Your task to perform on an android device: toggle notification dots Image 0: 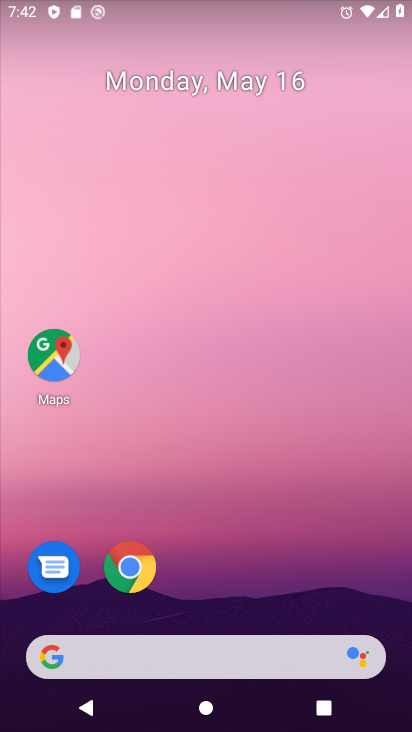
Step 0: drag from (214, 611) to (182, 245)
Your task to perform on an android device: toggle notification dots Image 1: 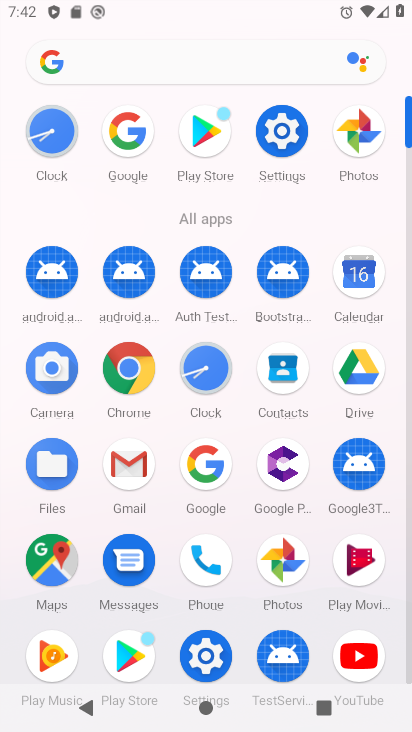
Step 1: click (275, 136)
Your task to perform on an android device: toggle notification dots Image 2: 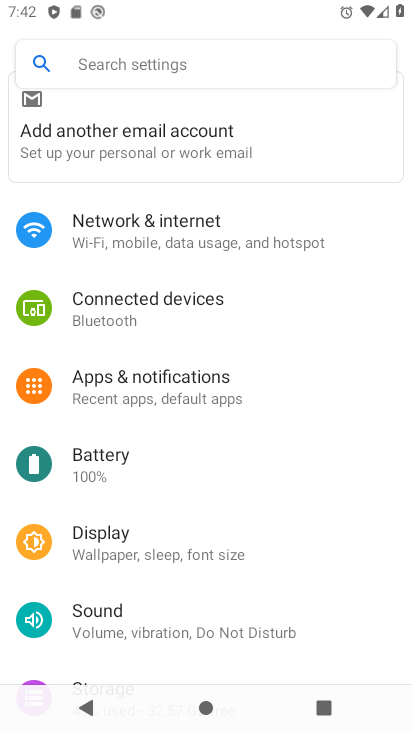
Step 2: click (197, 385)
Your task to perform on an android device: toggle notification dots Image 3: 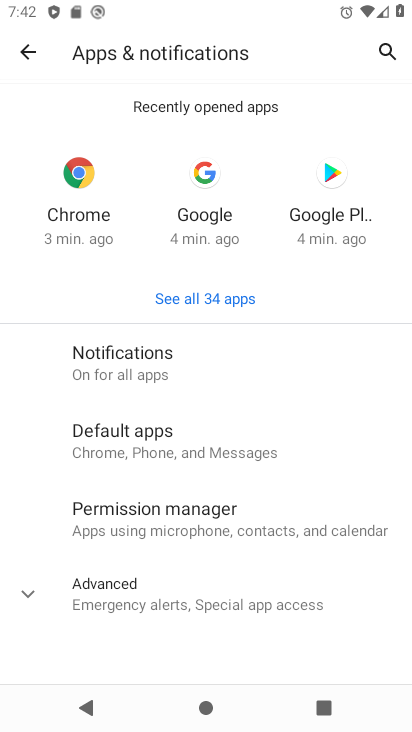
Step 3: click (131, 357)
Your task to perform on an android device: toggle notification dots Image 4: 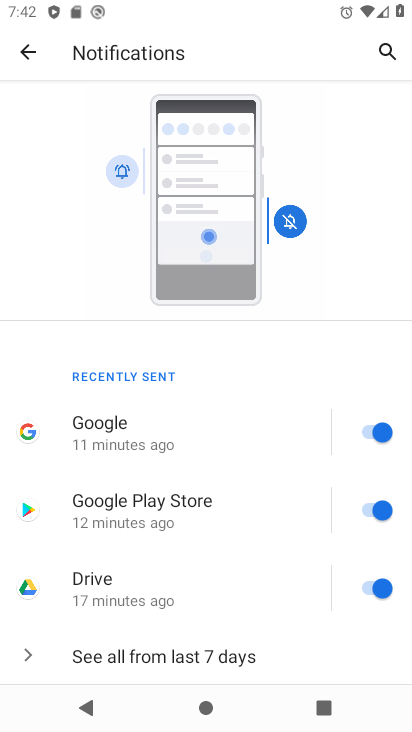
Step 4: drag from (175, 654) to (221, 130)
Your task to perform on an android device: toggle notification dots Image 5: 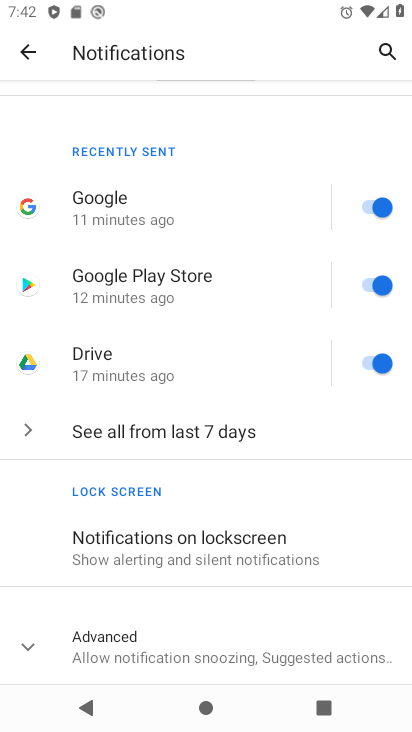
Step 5: drag from (208, 629) to (208, 284)
Your task to perform on an android device: toggle notification dots Image 6: 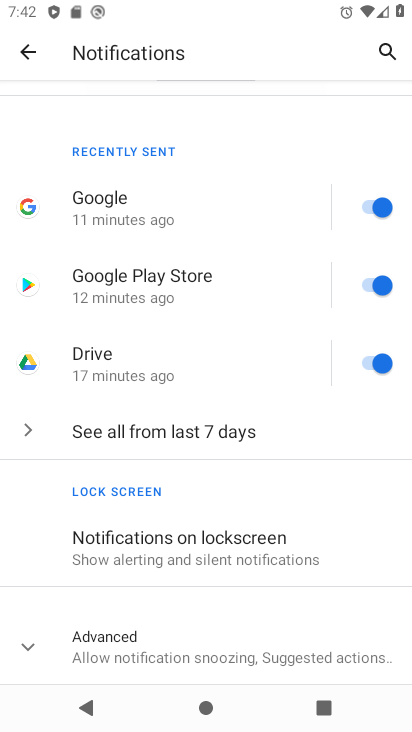
Step 6: click (118, 662)
Your task to perform on an android device: toggle notification dots Image 7: 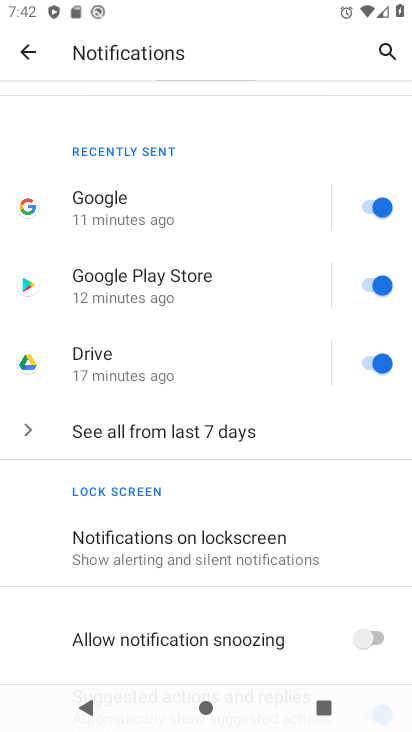
Step 7: drag from (240, 362) to (257, 212)
Your task to perform on an android device: toggle notification dots Image 8: 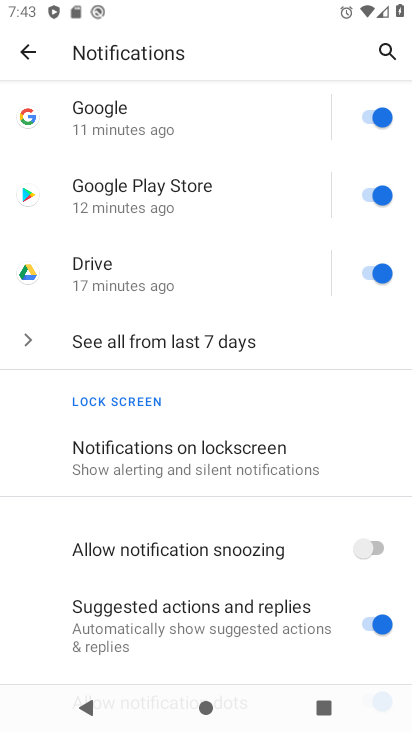
Step 8: drag from (257, 646) to (248, 299)
Your task to perform on an android device: toggle notification dots Image 9: 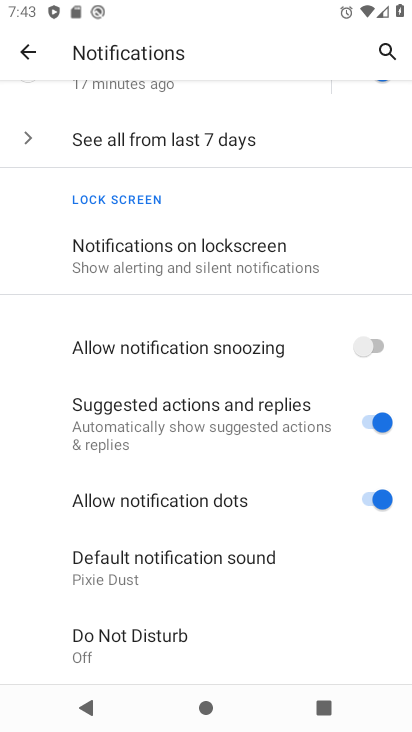
Step 9: click (360, 501)
Your task to perform on an android device: toggle notification dots Image 10: 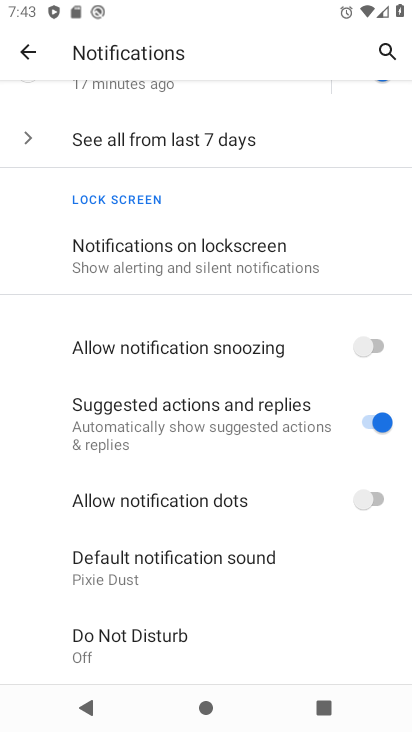
Step 10: task complete